Your task to perform on an android device: find snoozed emails in the gmail app Image 0: 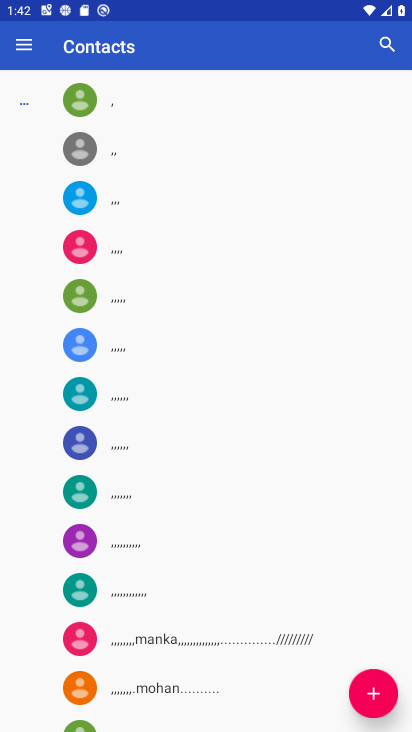
Step 0: press home button
Your task to perform on an android device: find snoozed emails in the gmail app Image 1: 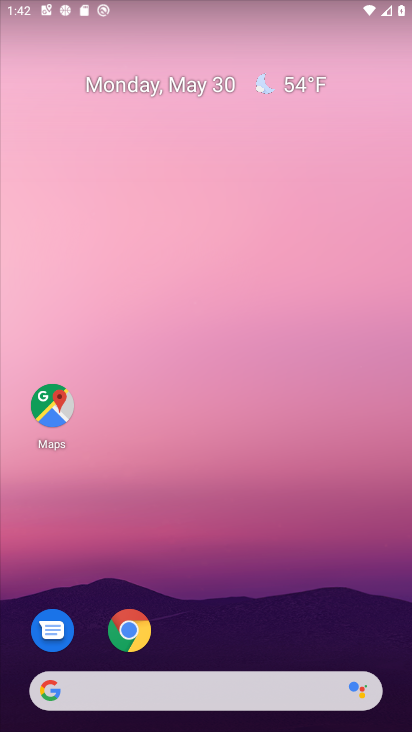
Step 1: drag from (159, 681) to (340, 171)
Your task to perform on an android device: find snoozed emails in the gmail app Image 2: 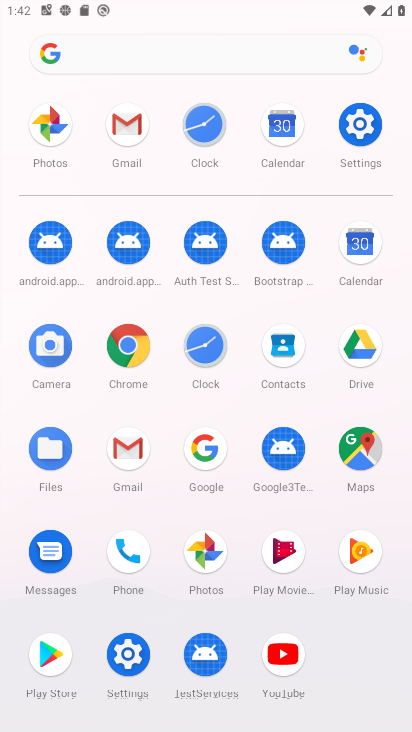
Step 2: click (129, 135)
Your task to perform on an android device: find snoozed emails in the gmail app Image 3: 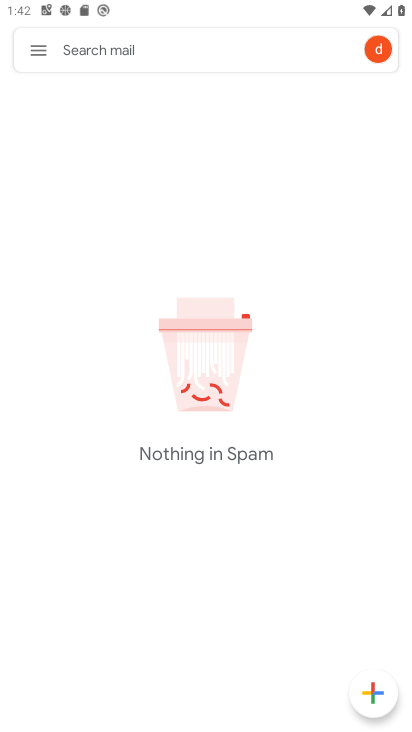
Step 3: click (31, 54)
Your task to perform on an android device: find snoozed emails in the gmail app Image 4: 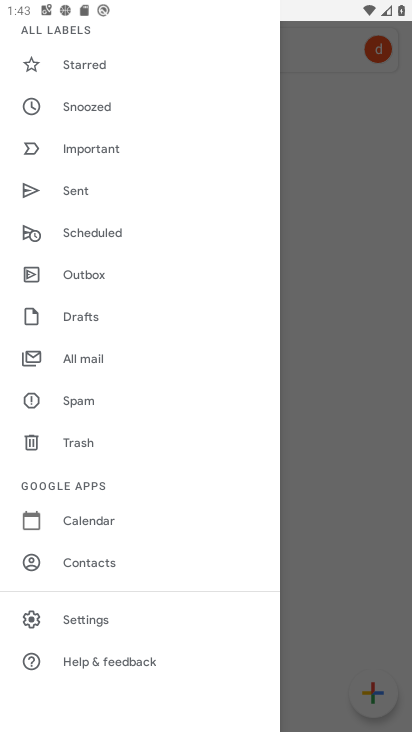
Step 4: click (114, 107)
Your task to perform on an android device: find snoozed emails in the gmail app Image 5: 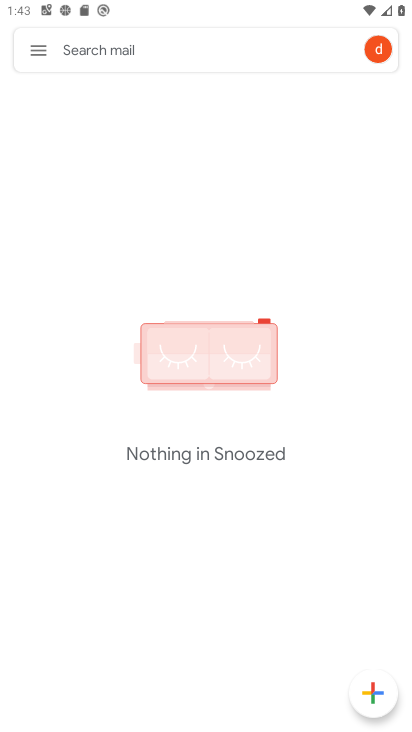
Step 5: task complete